Your task to perform on an android device: turn off notifications settings in the gmail app Image 0: 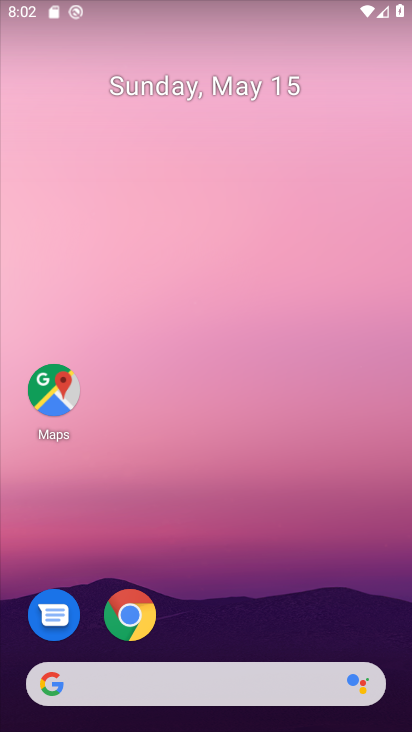
Step 0: drag from (209, 660) to (214, 310)
Your task to perform on an android device: turn off notifications settings in the gmail app Image 1: 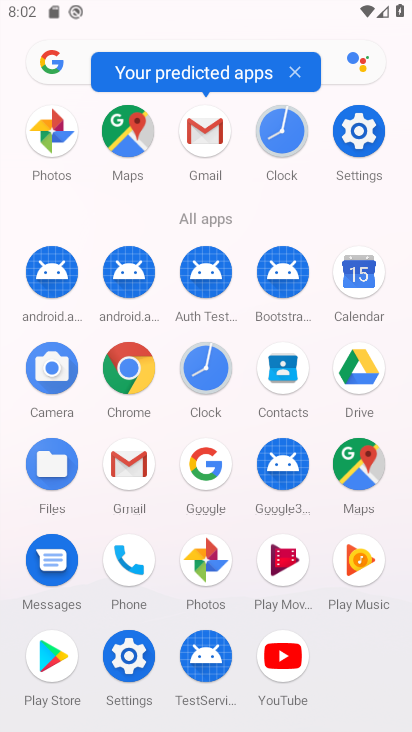
Step 1: click (206, 136)
Your task to perform on an android device: turn off notifications settings in the gmail app Image 2: 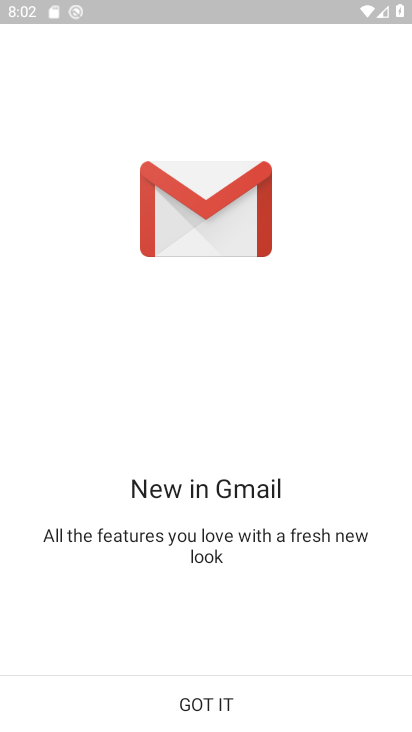
Step 2: click (218, 708)
Your task to perform on an android device: turn off notifications settings in the gmail app Image 3: 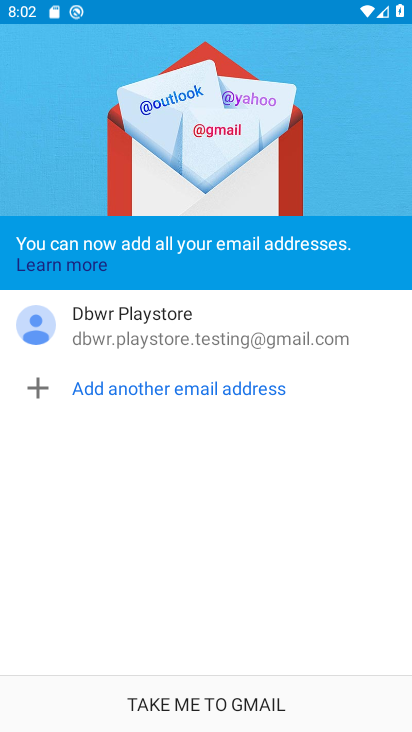
Step 3: click (218, 708)
Your task to perform on an android device: turn off notifications settings in the gmail app Image 4: 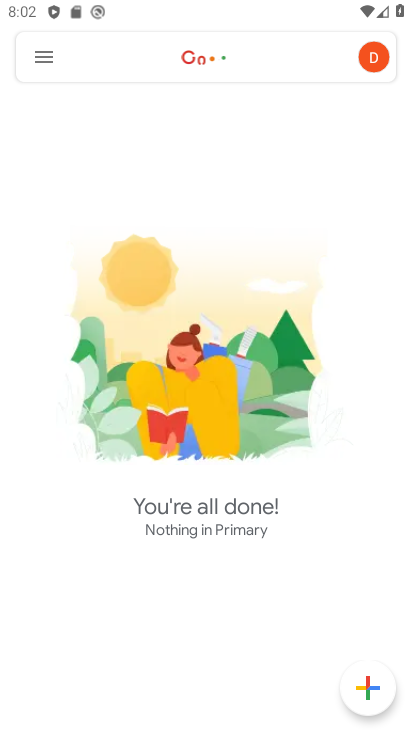
Step 4: click (46, 56)
Your task to perform on an android device: turn off notifications settings in the gmail app Image 5: 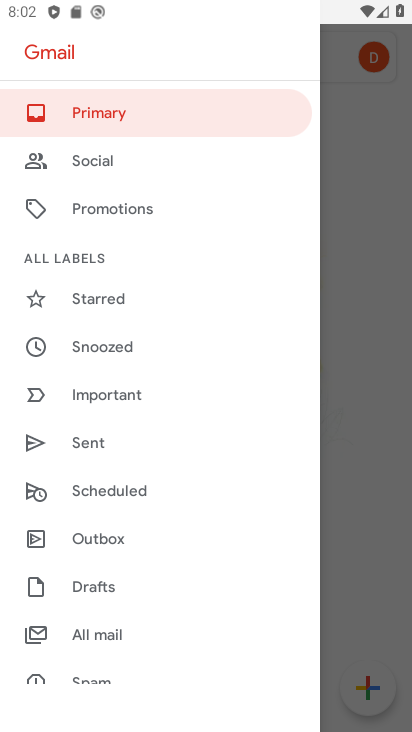
Step 5: drag from (86, 648) to (99, 280)
Your task to perform on an android device: turn off notifications settings in the gmail app Image 6: 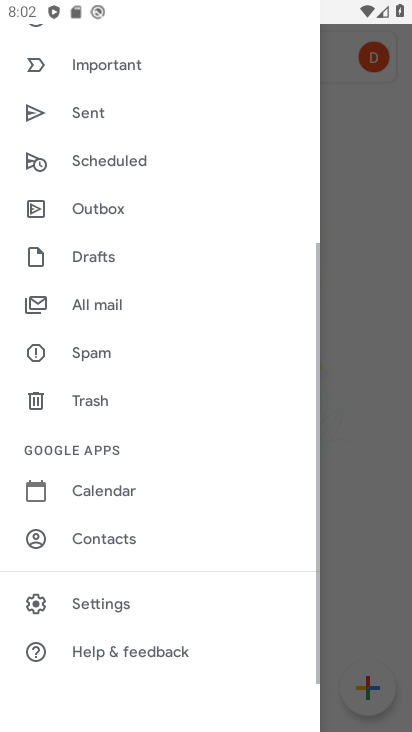
Step 6: click (72, 604)
Your task to perform on an android device: turn off notifications settings in the gmail app Image 7: 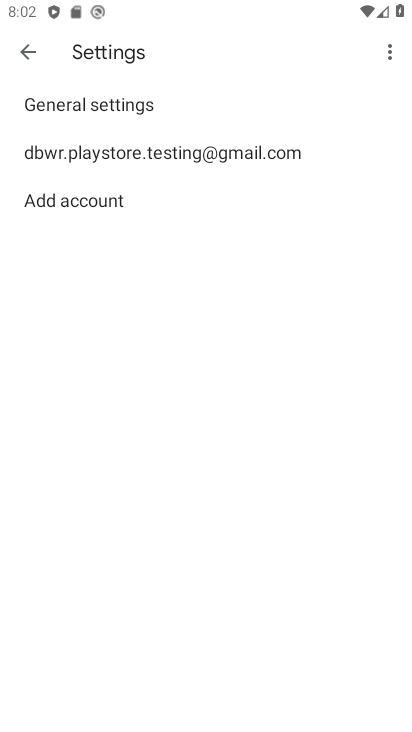
Step 7: click (152, 155)
Your task to perform on an android device: turn off notifications settings in the gmail app Image 8: 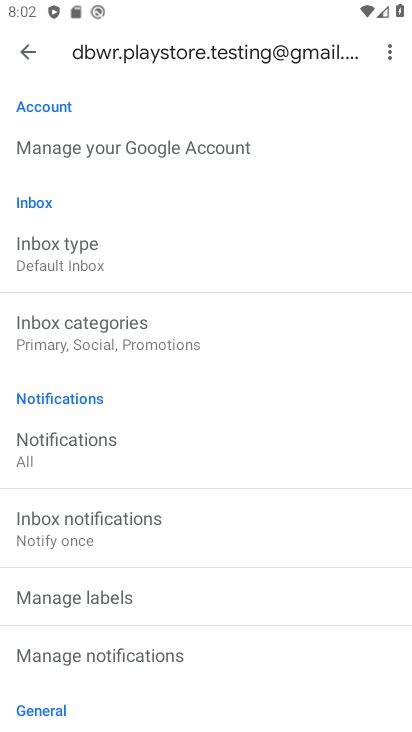
Step 8: click (39, 56)
Your task to perform on an android device: turn off notifications settings in the gmail app Image 9: 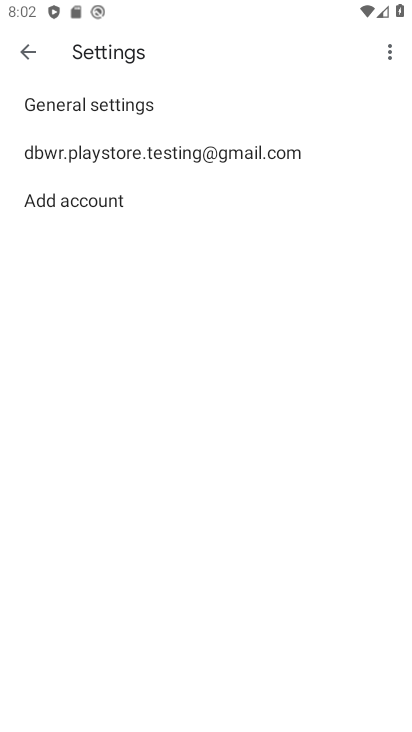
Step 9: click (81, 99)
Your task to perform on an android device: turn off notifications settings in the gmail app Image 10: 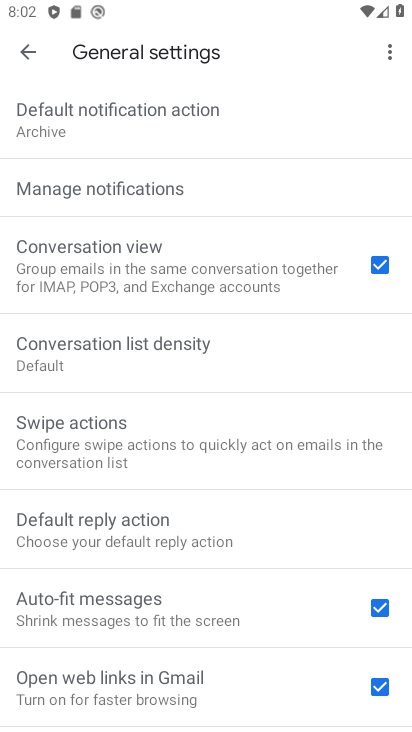
Step 10: click (123, 187)
Your task to perform on an android device: turn off notifications settings in the gmail app Image 11: 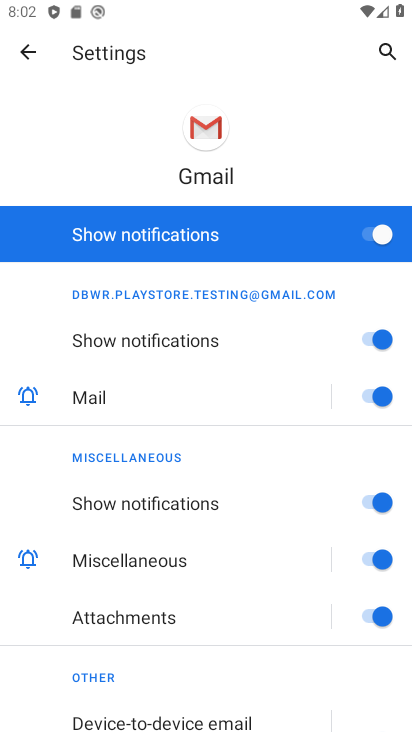
Step 11: click (354, 229)
Your task to perform on an android device: turn off notifications settings in the gmail app Image 12: 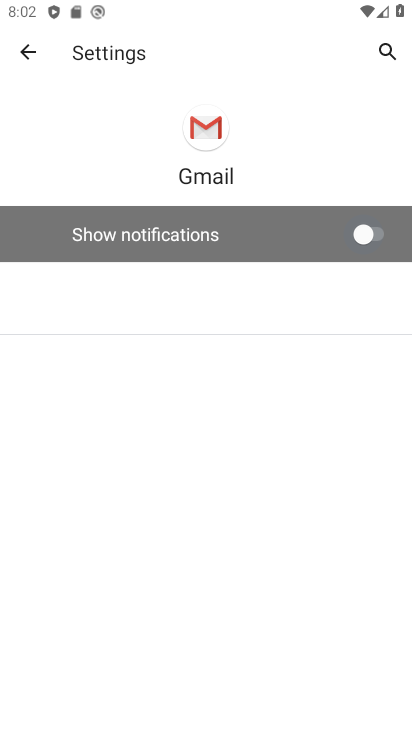
Step 12: click (365, 238)
Your task to perform on an android device: turn off notifications settings in the gmail app Image 13: 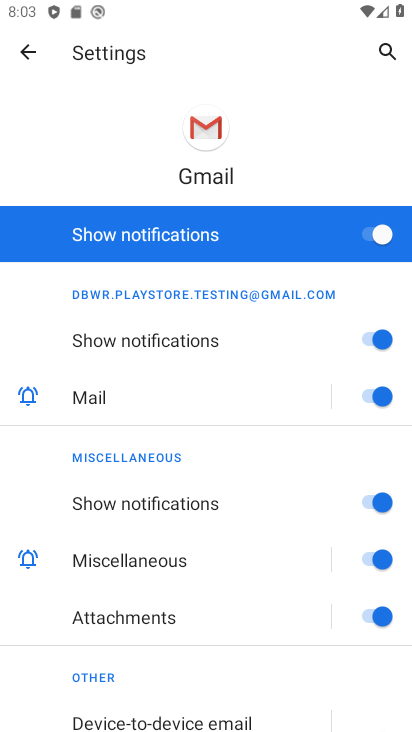
Step 13: click (368, 234)
Your task to perform on an android device: turn off notifications settings in the gmail app Image 14: 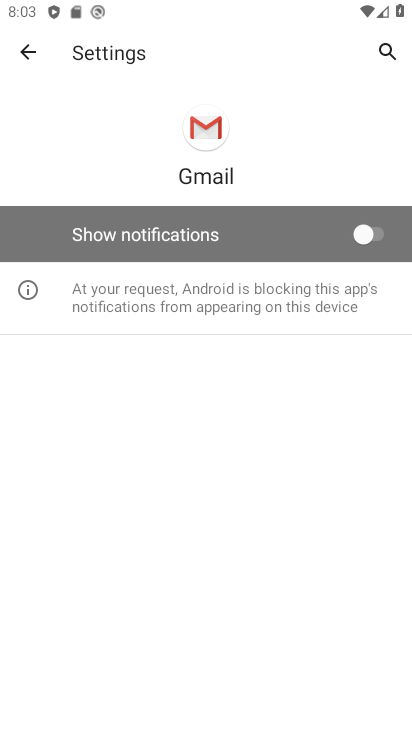
Step 14: task complete